Your task to perform on an android device: see tabs open on other devices in the chrome app Image 0: 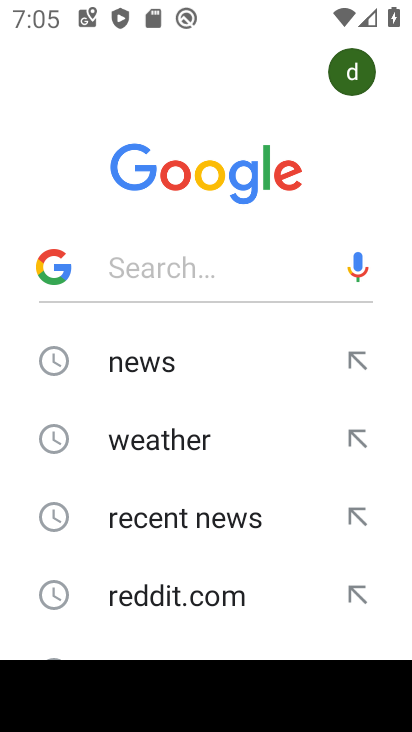
Step 0: press home button
Your task to perform on an android device: see tabs open on other devices in the chrome app Image 1: 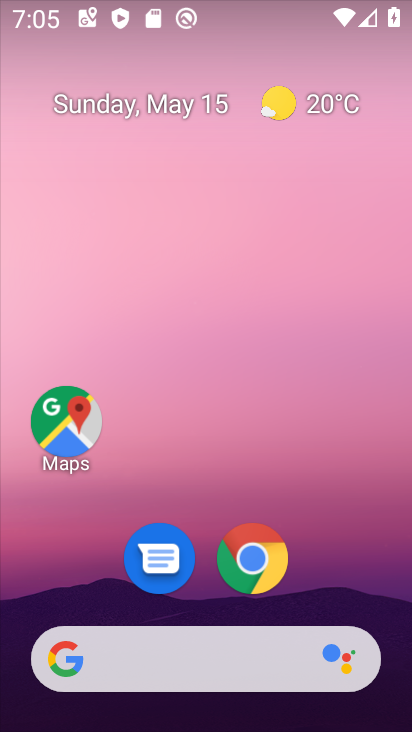
Step 1: click (251, 561)
Your task to perform on an android device: see tabs open on other devices in the chrome app Image 2: 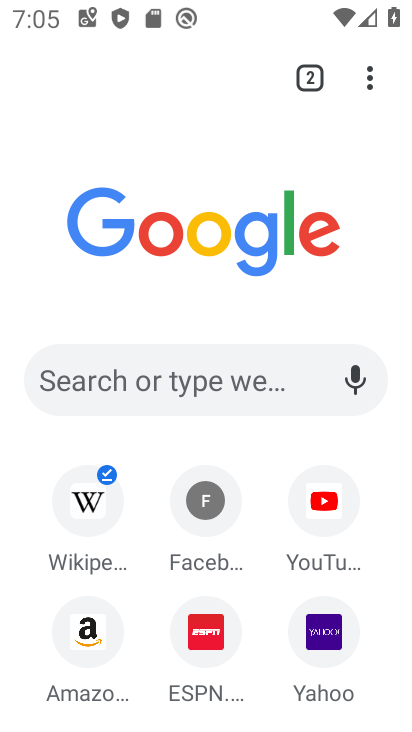
Step 2: click (369, 75)
Your task to perform on an android device: see tabs open on other devices in the chrome app Image 3: 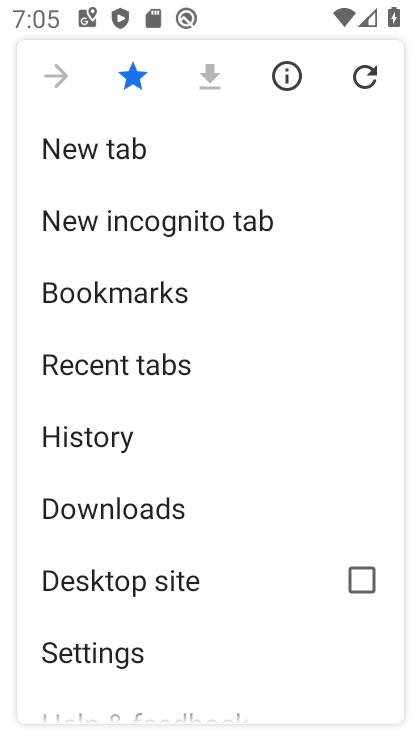
Step 3: click (126, 362)
Your task to perform on an android device: see tabs open on other devices in the chrome app Image 4: 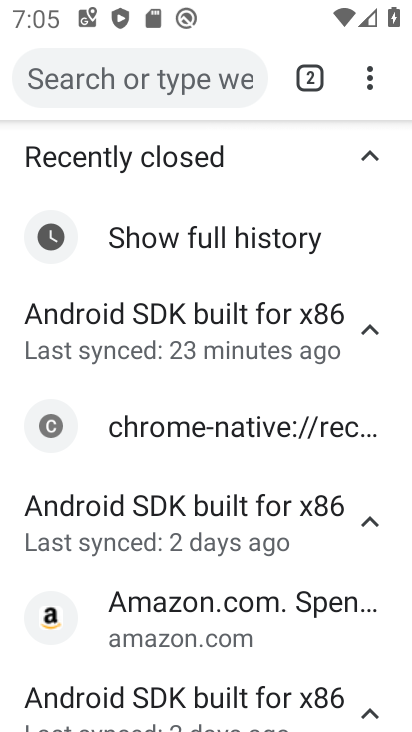
Step 4: task complete